Your task to perform on an android device: change the clock display to digital Image 0: 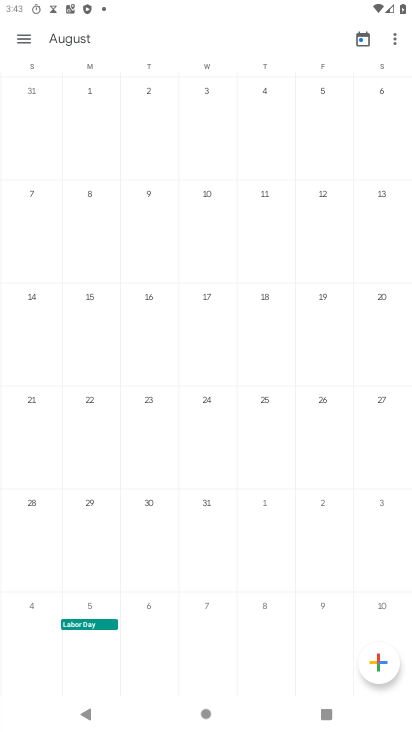
Step 0: press home button
Your task to perform on an android device: change the clock display to digital Image 1: 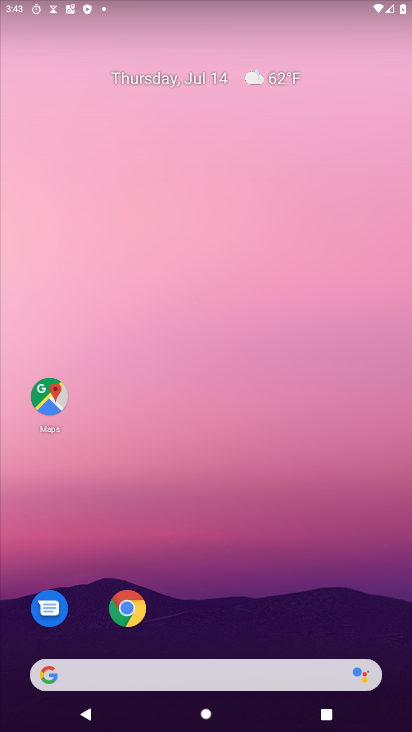
Step 1: drag from (189, 682) to (163, 149)
Your task to perform on an android device: change the clock display to digital Image 2: 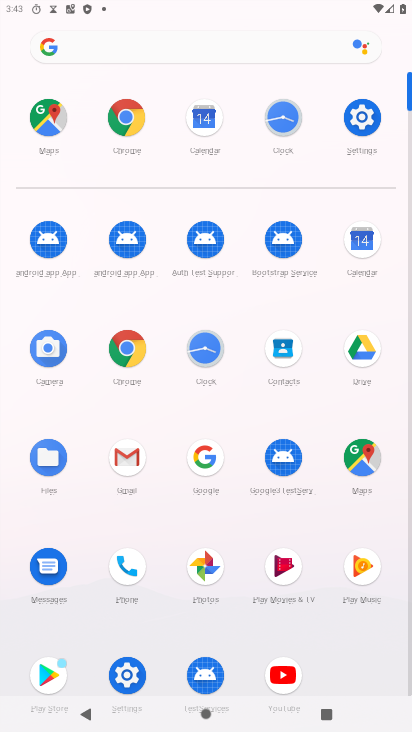
Step 2: click (207, 370)
Your task to perform on an android device: change the clock display to digital Image 3: 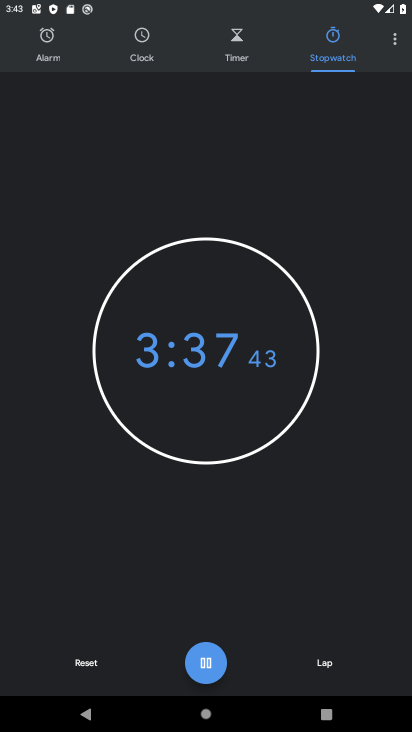
Step 3: click (395, 51)
Your task to perform on an android device: change the clock display to digital Image 4: 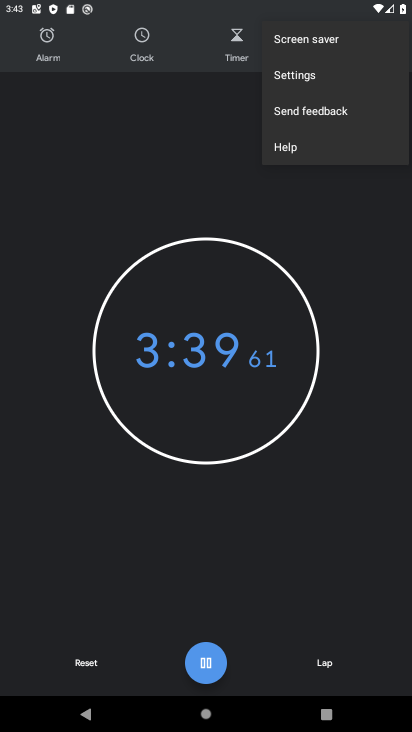
Step 4: click (304, 85)
Your task to perform on an android device: change the clock display to digital Image 5: 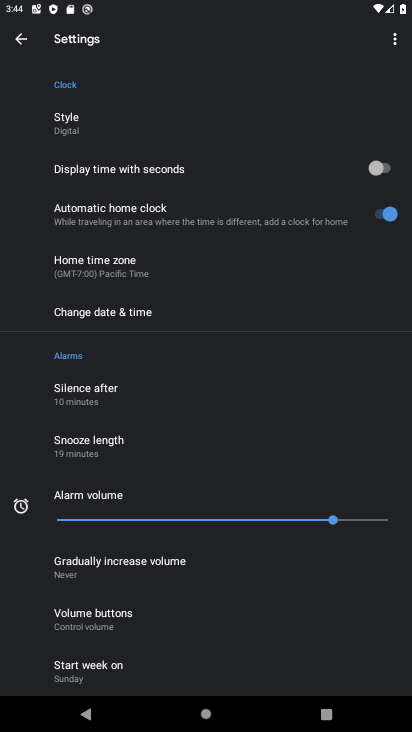
Step 5: click (91, 127)
Your task to perform on an android device: change the clock display to digital Image 6: 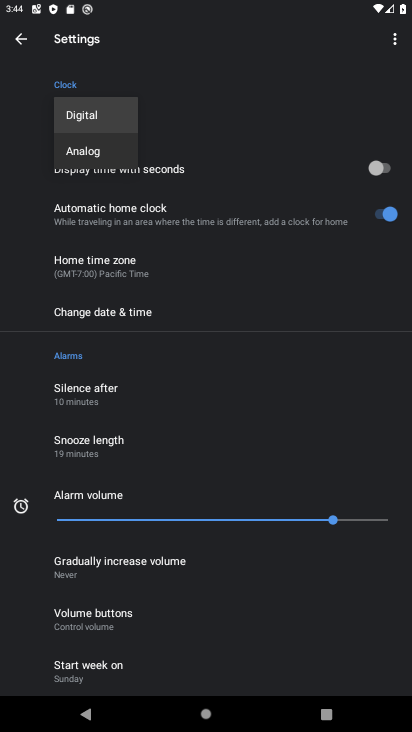
Step 6: click (114, 121)
Your task to perform on an android device: change the clock display to digital Image 7: 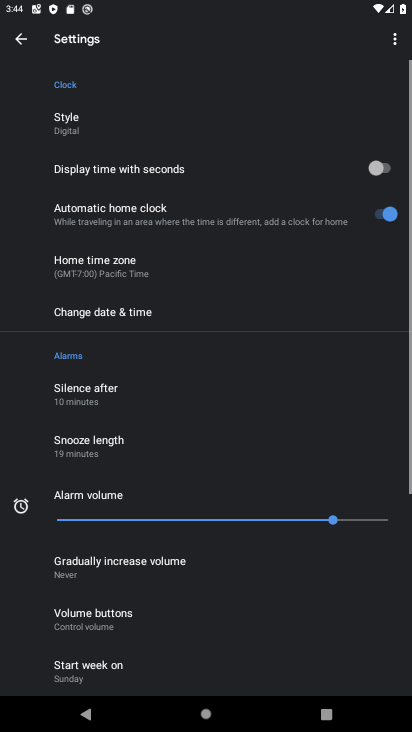
Step 7: task complete